Your task to perform on an android device: toggle data saver in the chrome app Image 0: 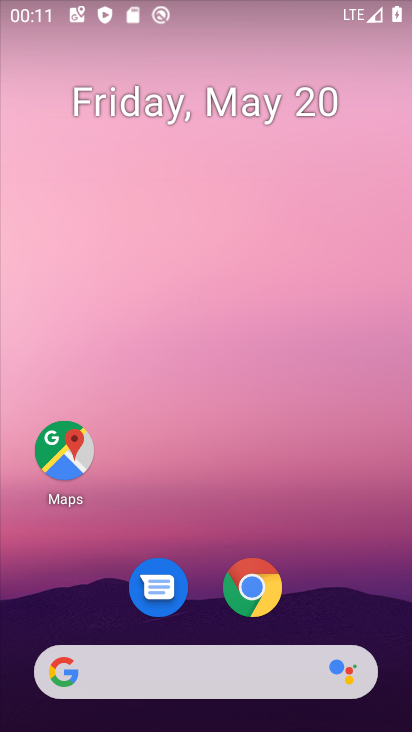
Step 0: drag from (267, 673) to (252, 110)
Your task to perform on an android device: toggle data saver in the chrome app Image 1: 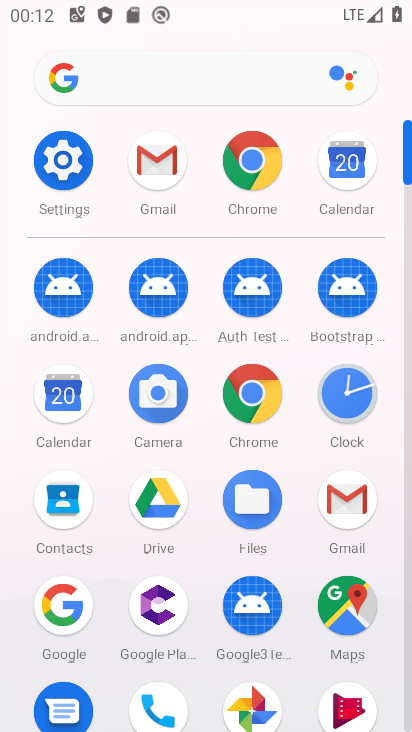
Step 1: click (235, 181)
Your task to perform on an android device: toggle data saver in the chrome app Image 2: 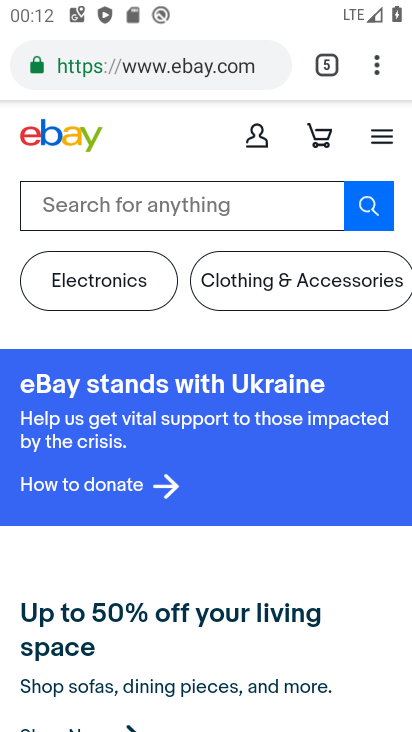
Step 2: click (364, 65)
Your task to perform on an android device: toggle data saver in the chrome app Image 3: 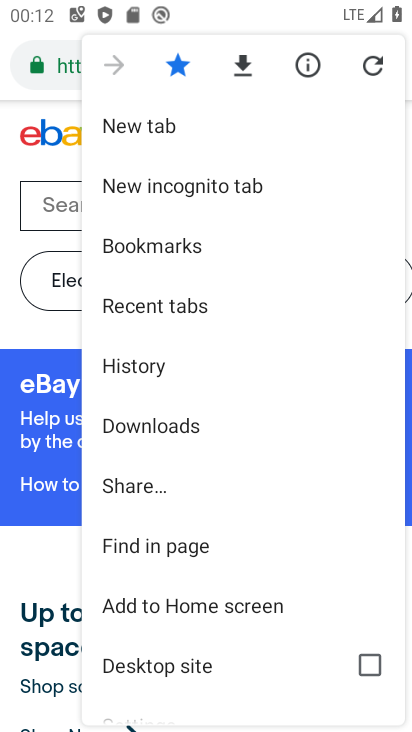
Step 3: drag from (142, 540) to (133, 333)
Your task to perform on an android device: toggle data saver in the chrome app Image 4: 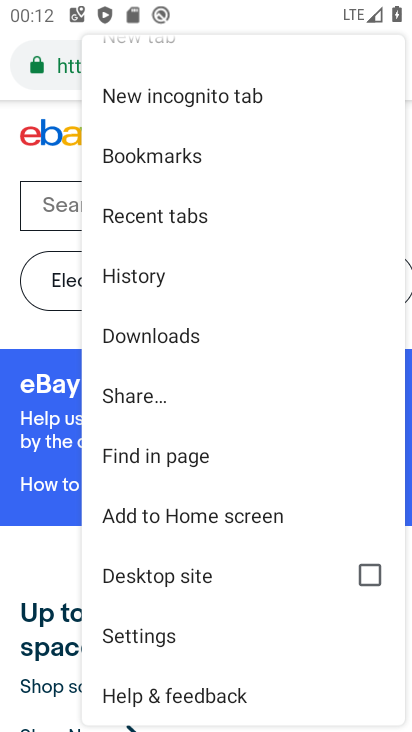
Step 4: click (163, 628)
Your task to perform on an android device: toggle data saver in the chrome app Image 5: 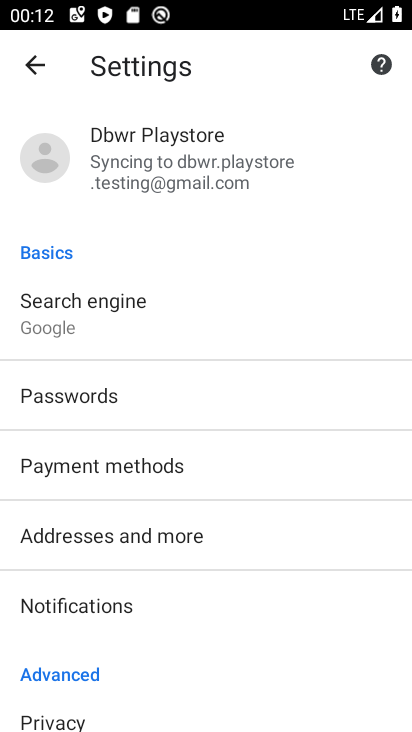
Step 5: drag from (163, 628) to (229, 351)
Your task to perform on an android device: toggle data saver in the chrome app Image 6: 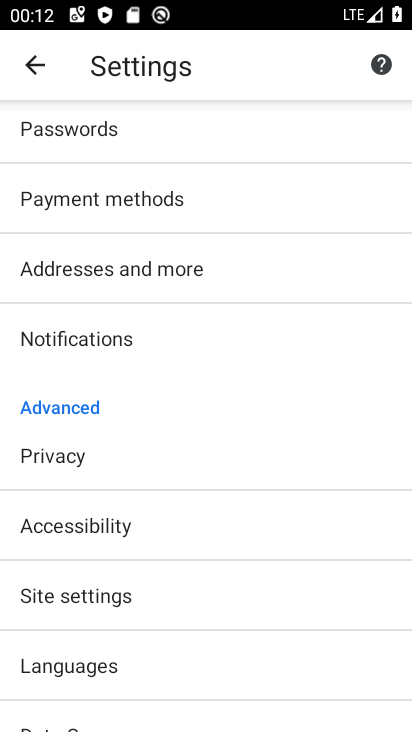
Step 6: drag from (104, 601) to (132, 427)
Your task to perform on an android device: toggle data saver in the chrome app Image 7: 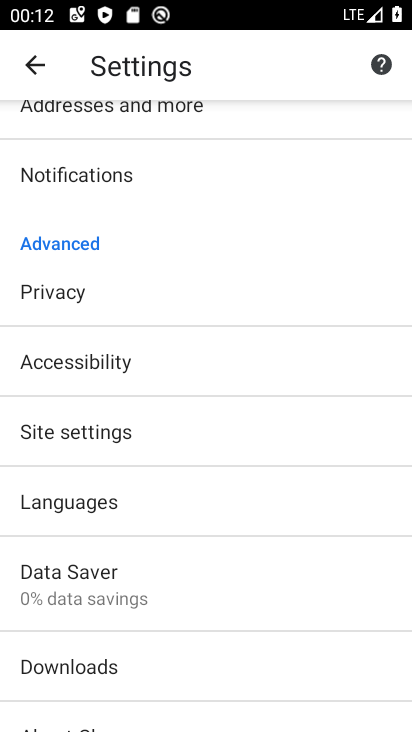
Step 7: click (118, 583)
Your task to perform on an android device: toggle data saver in the chrome app Image 8: 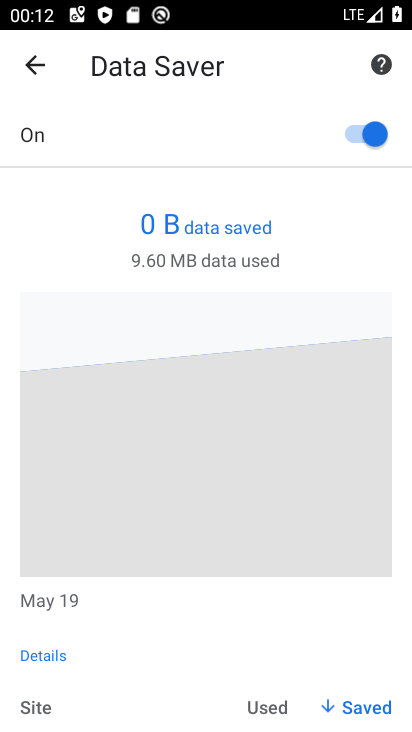
Step 8: task complete